Your task to perform on an android device: Add "acer nitro" to the cart on ebay.com, then select checkout. Image 0: 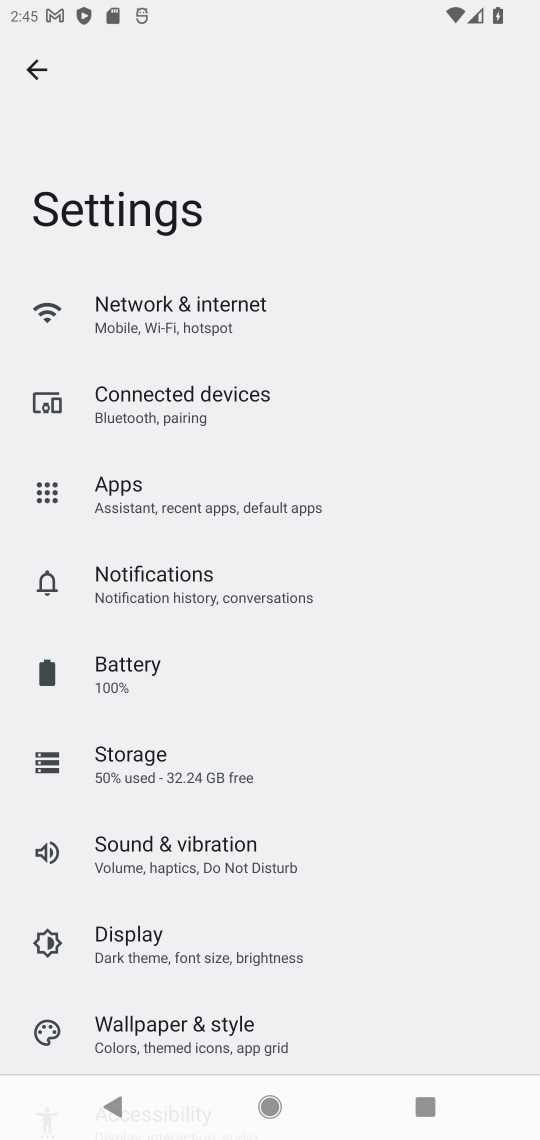
Step 0: press home button
Your task to perform on an android device: Add "acer nitro" to the cart on ebay.com, then select checkout. Image 1: 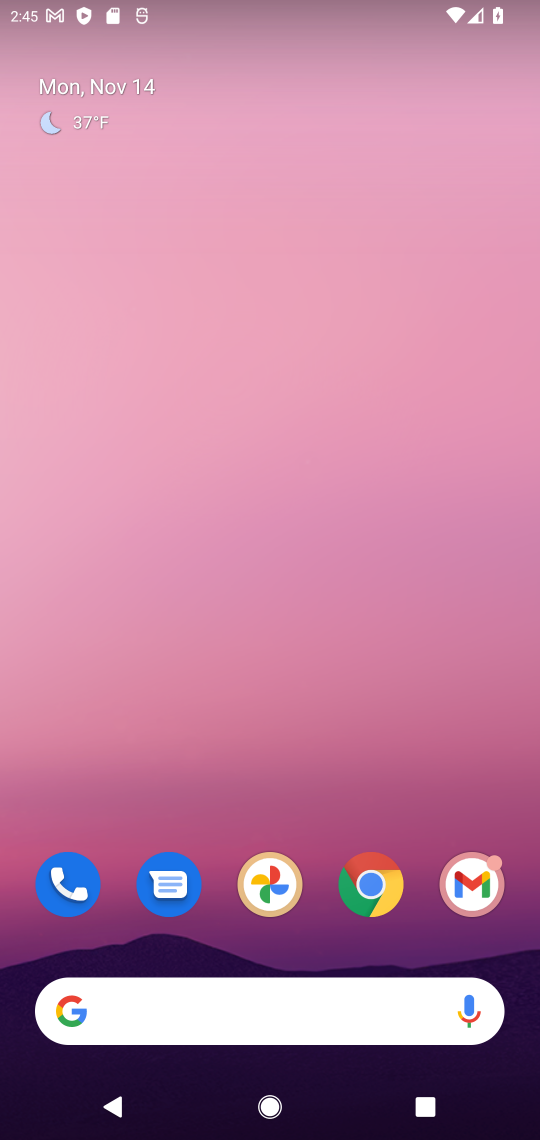
Step 1: click (373, 881)
Your task to perform on an android device: Add "acer nitro" to the cart on ebay.com, then select checkout. Image 2: 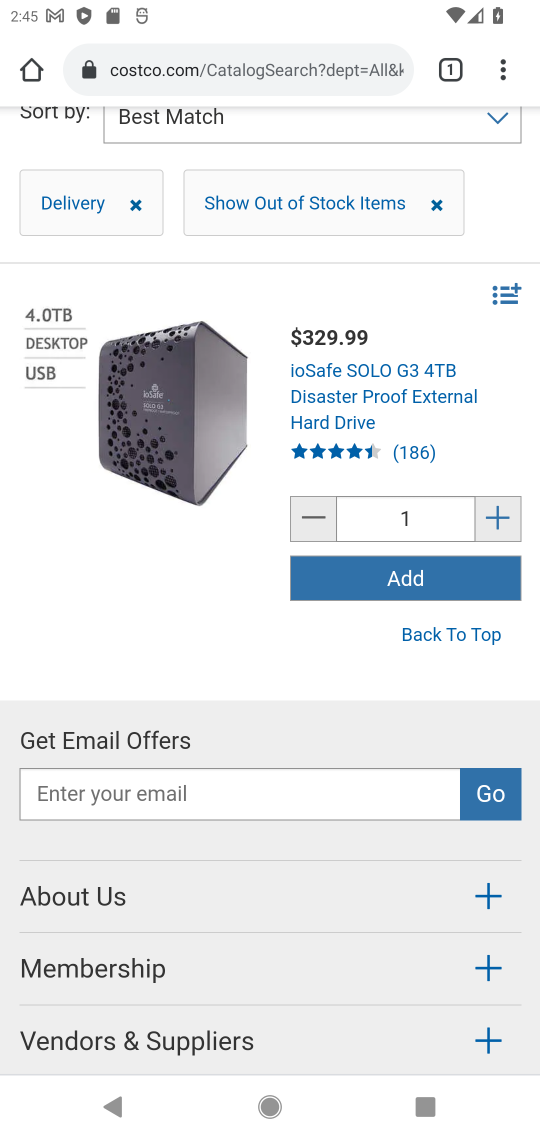
Step 2: click (253, 68)
Your task to perform on an android device: Add "acer nitro" to the cart on ebay.com, then select checkout. Image 3: 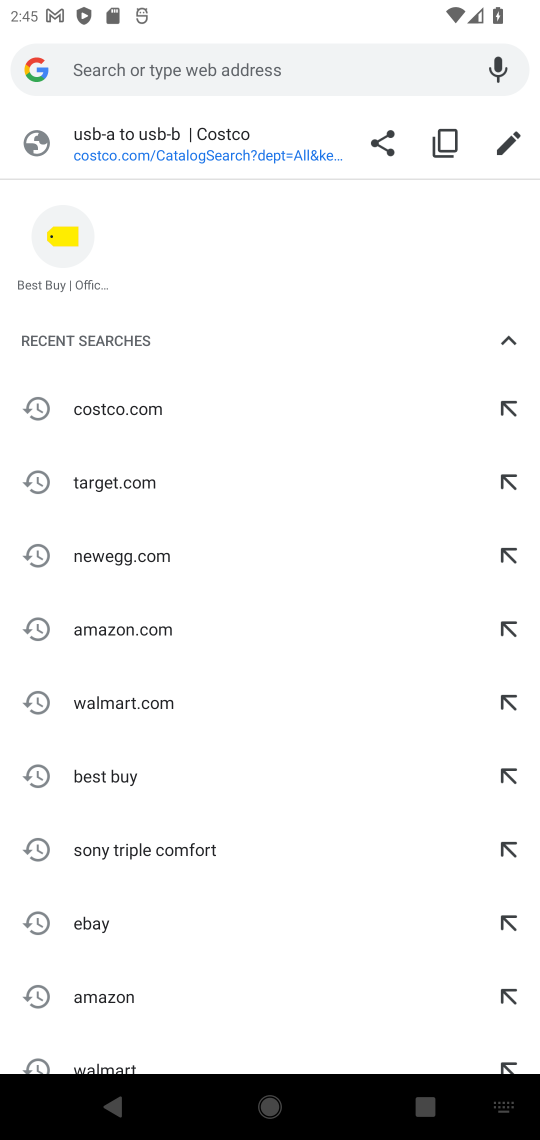
Step 3: click (97, 924)
Your task to perform on an android device: Add "acer nitro" to the cart on ebay.com, then select checkout. Image 4: 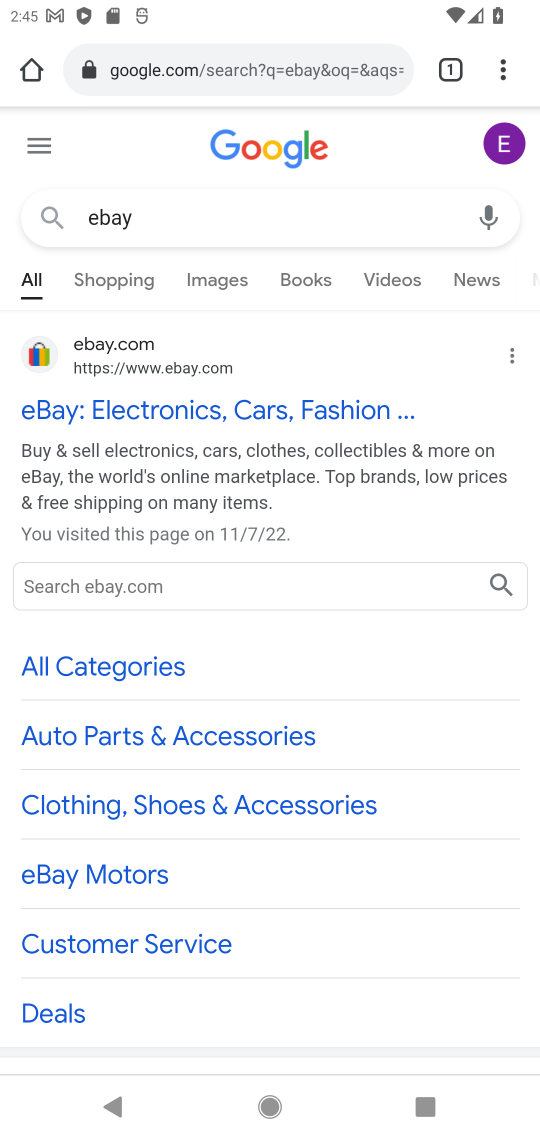
Step 4: click (127, 369)
Your task to perform on an android device: Add "acer nitro" to the cart on ebay.com, then select checkout. Image 5: 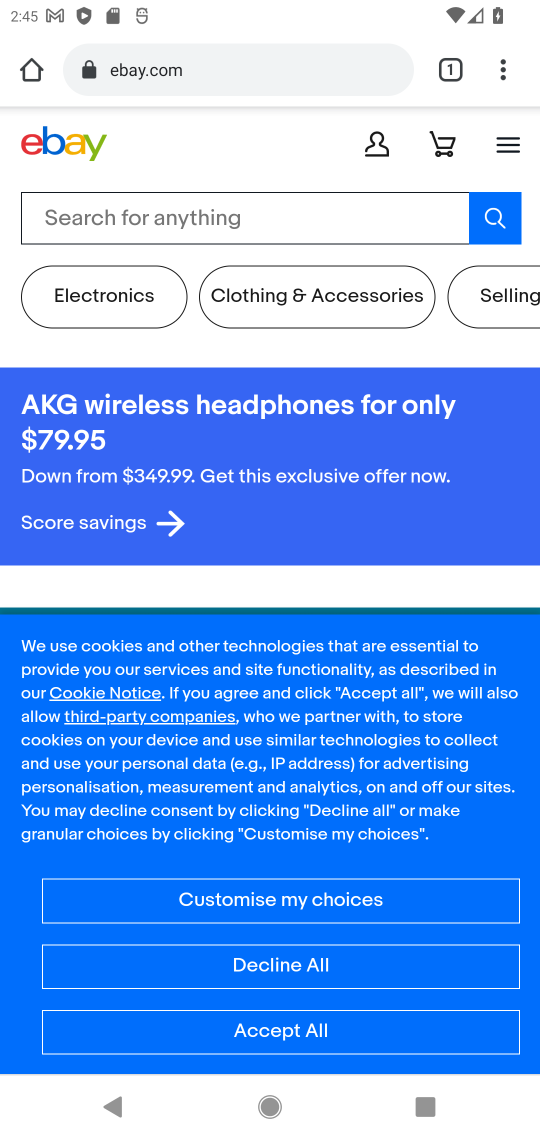
Step 5: click (419, 207)
Your task to perform on an android device: Add "acer nitro" to the cart on ebay.com, then select checkout. Image 6: 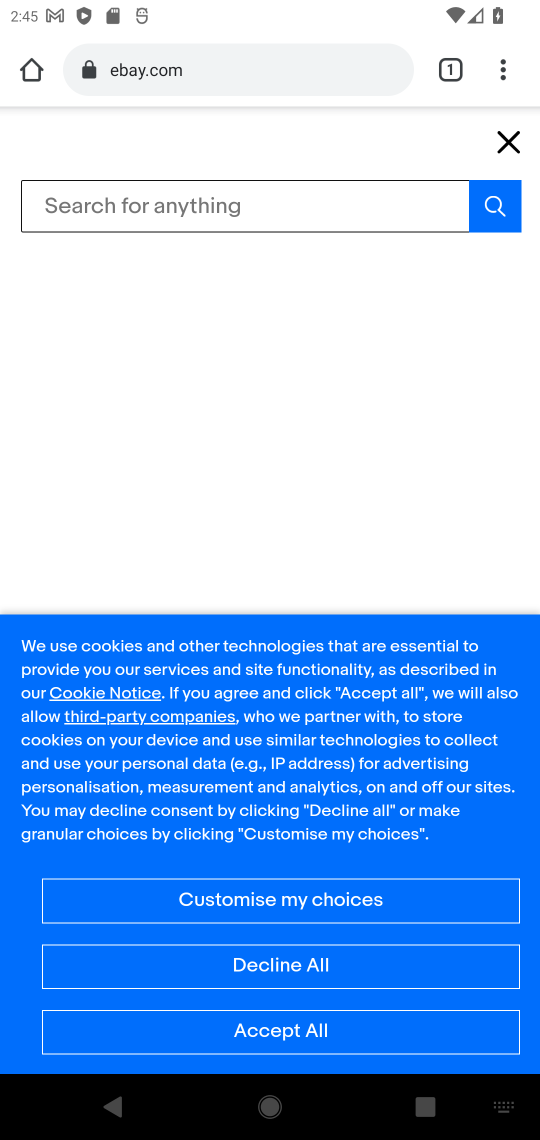
Step 6: press enter
Your task to perform on an android device: Add "acer nitro" to the cart on ebay.com, then select checkout. Image 7: 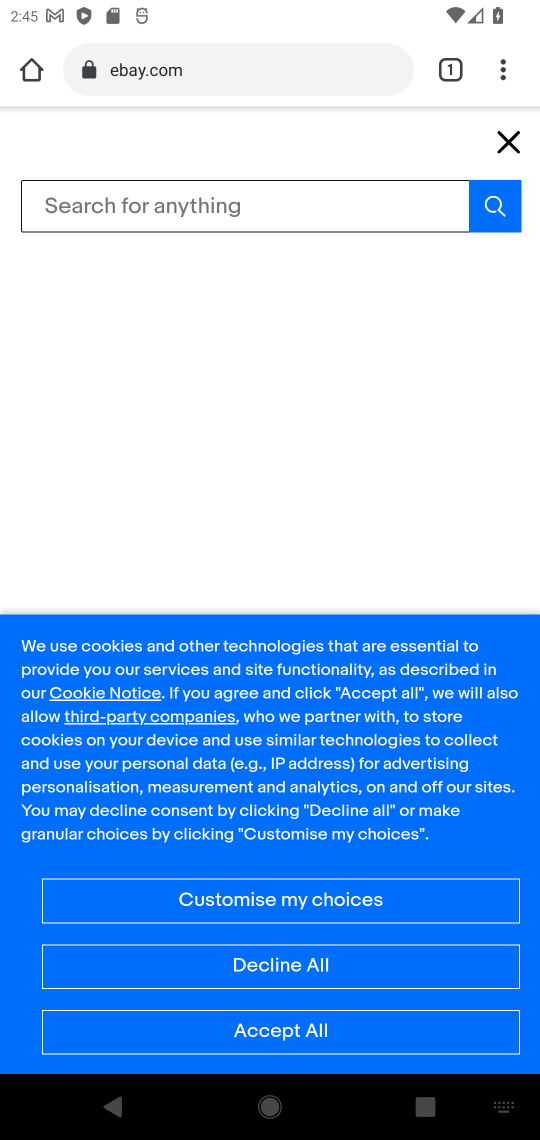
Step 7: type "acer nitro"
Your task to perform on an android device: Add "acer nitro" to the cart on ebay.com, then select checkout. Image 8: 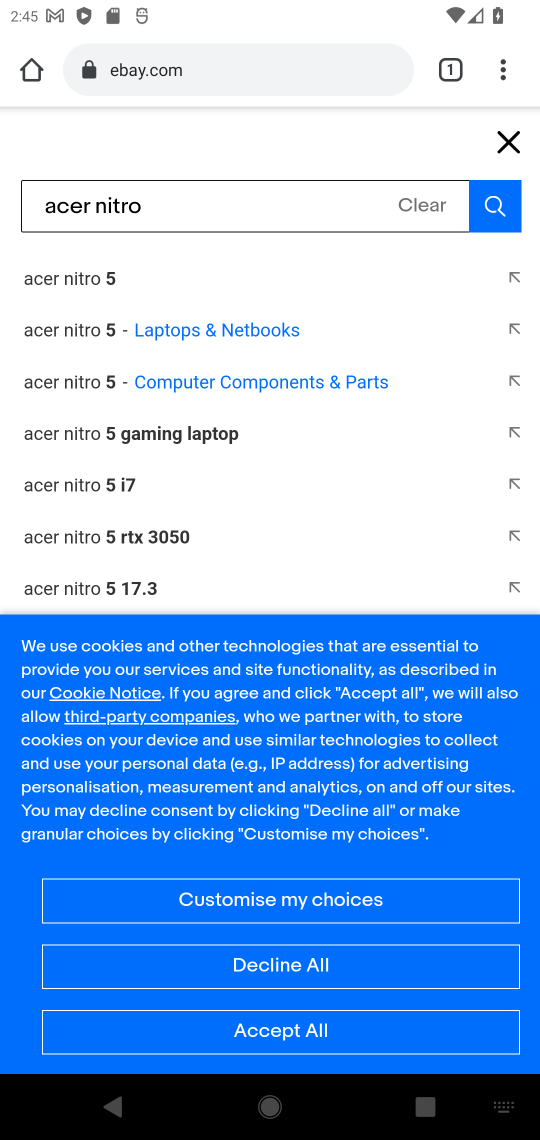
Step 8: click (273, 1026)
Your task to perform on an android device: Add "acer nitro" to the cart on ebay.com, then select checkout. Image 9: 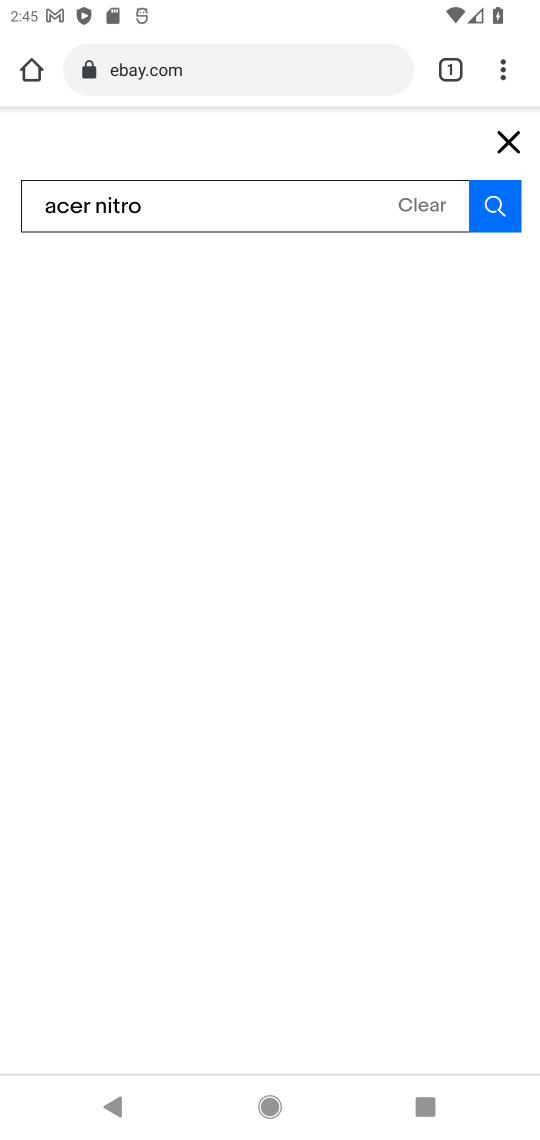
Step 9: click (484, 204)
Your task to perform on an android device: Add "acer nitro" to the cart on ebay.com, then select checkout. Image 10: 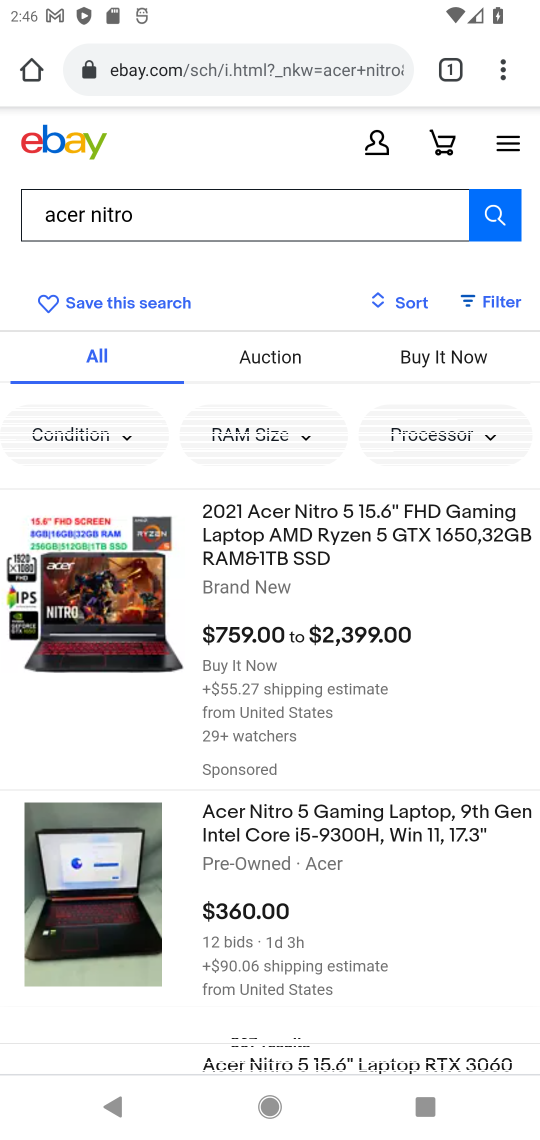
Step 10: drag from (335, 836) to (527, 417)
Your task to perform on an android device: Add "acer nitro" to the cart on ebay.com, then select checkout. Image 11: 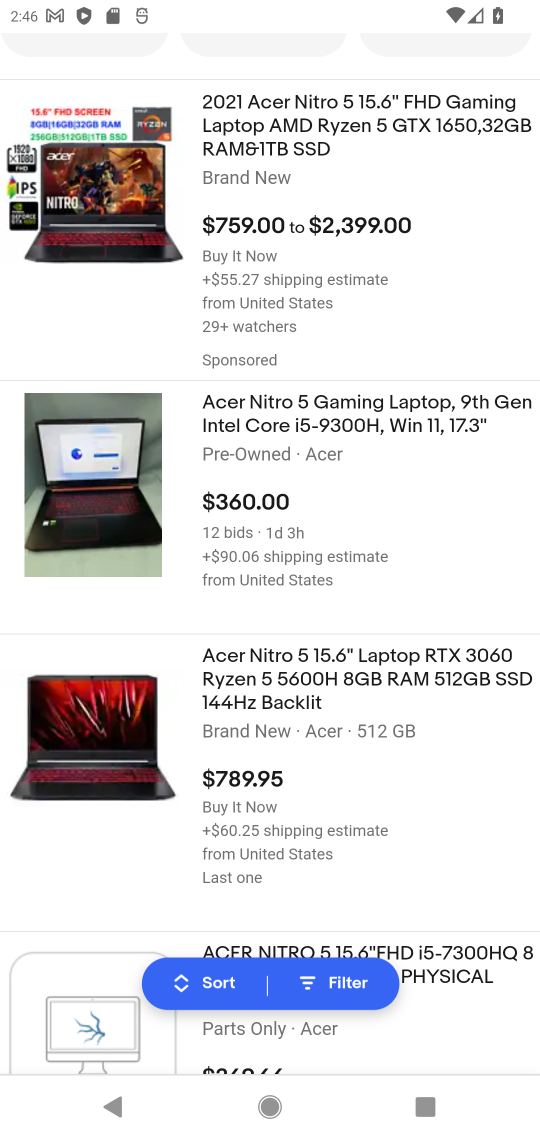
Step 11: drag from (423, 836) to (439, 437)
Your task to perform on an android device: Add "acer nitro" to the cart on ebay.com, then select checkout. Image 12: 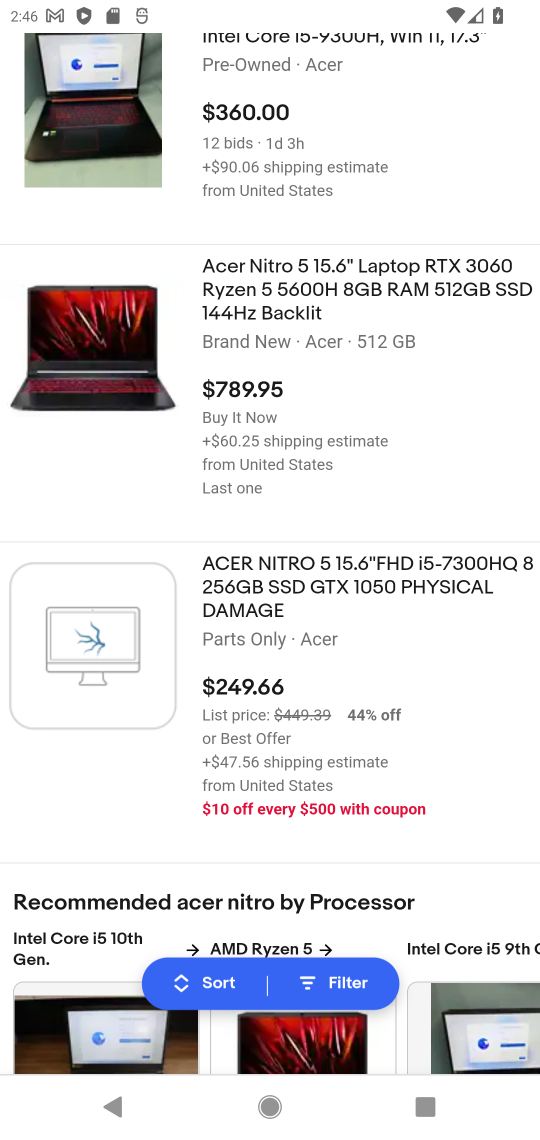
Step 12: drag from (427, 684) to (450, 333)
Your task to perform on an android device: Add "acer nitro" to the cart on ebay.com, then select checkout. Image 13: 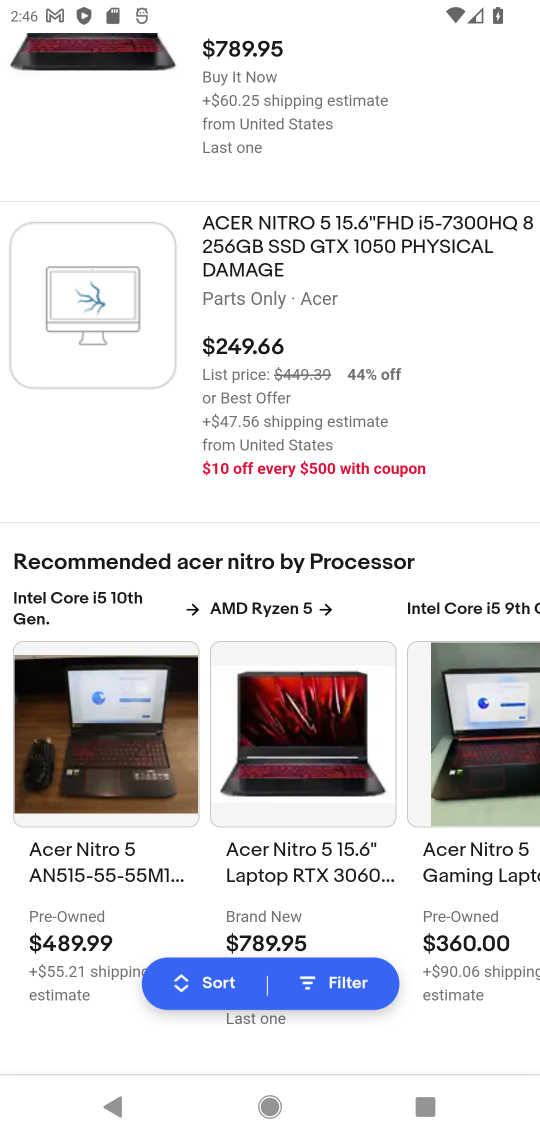
Step 13: drag from (394, 734) to (332, 329)
Your task to perform on an android device: Add "acer nitro" to the cart on ebay.com, then select checkout. Image 14: 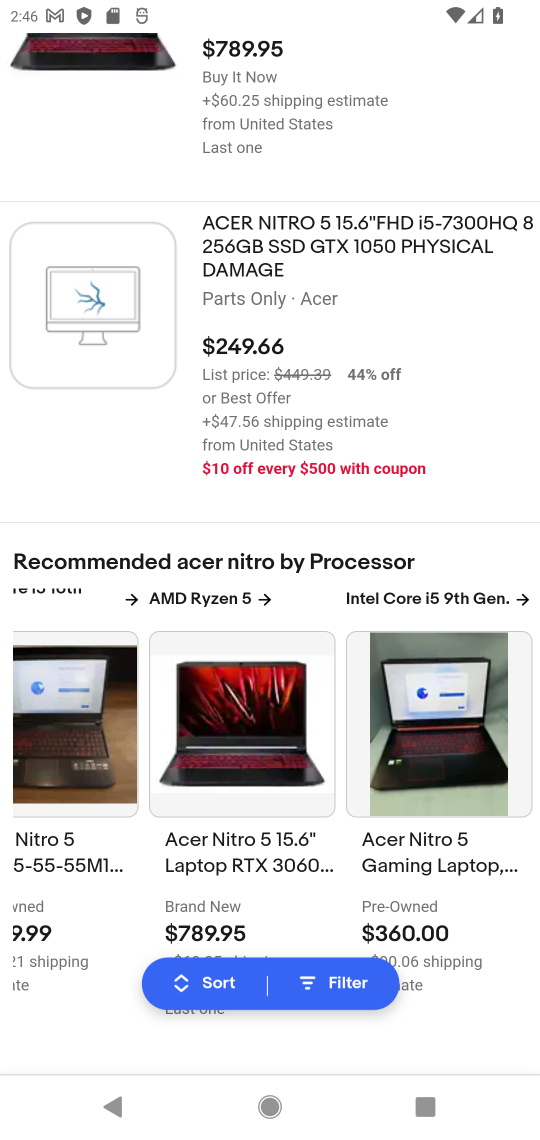
Step 14: drag from (341, 635) to (366, 289)
Your task to perform on an android device: Add "acer nitro" to the cart on ebay.com, then select checkout. Image 15: 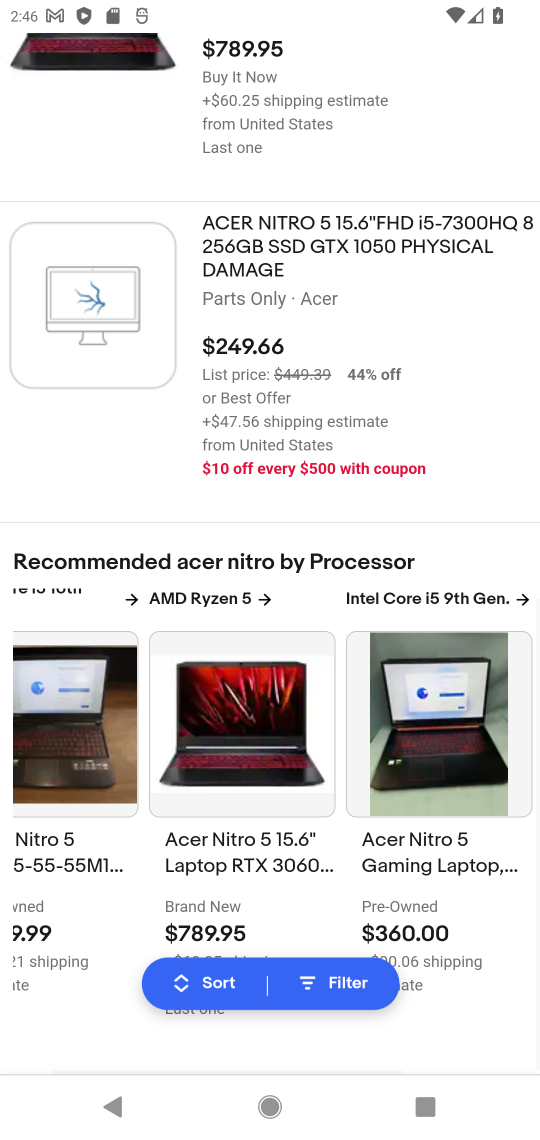
Step 15: drag from (344, 380) to (341, 589)
Your task to perform on an android device: Add "acer nitro" to the cart on ebay.com, then select checkout. Image 16: 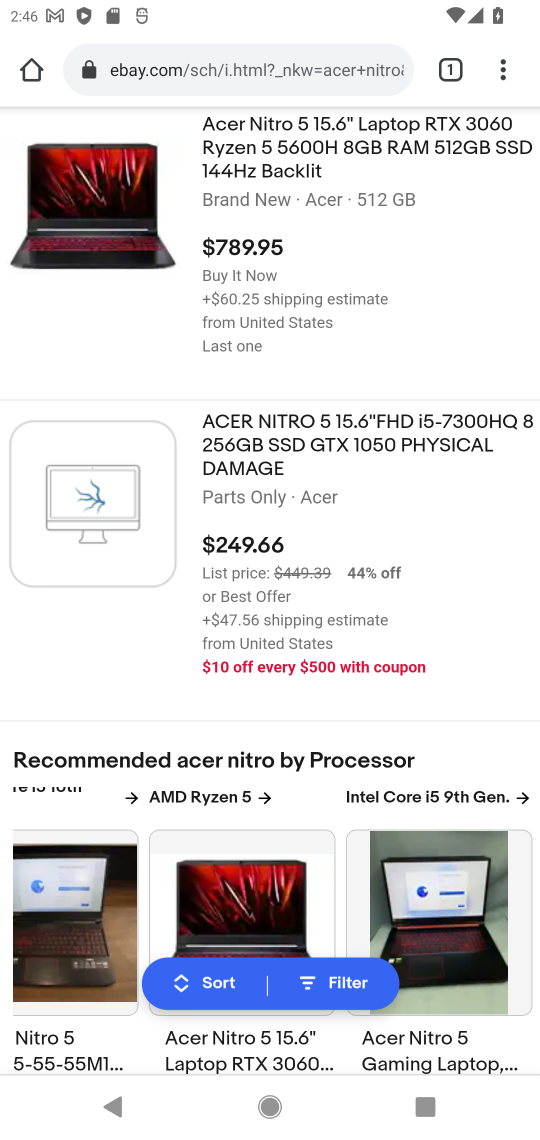
Step 16: drag from (262, 249) to (284, 491)
Your task to perform on an android device: Add "acer nitro" to the cart on ebay.com, then select checkout. Image 17: 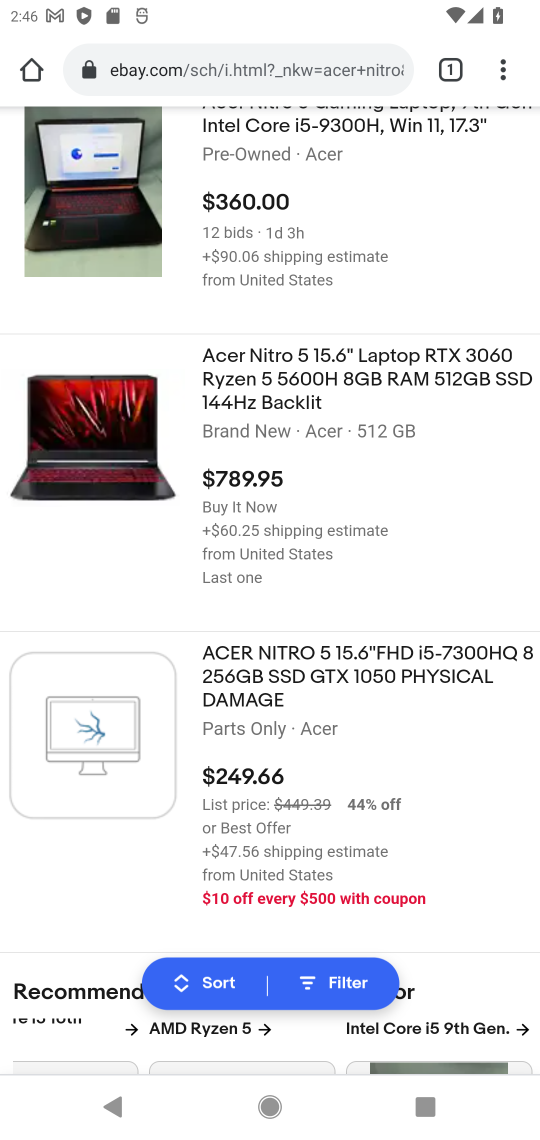
Step 17: click (123, 339)
Your task to perform on an android device: Add "acer nitro" to the cart on ebay.com, then select checkout. Image 18: 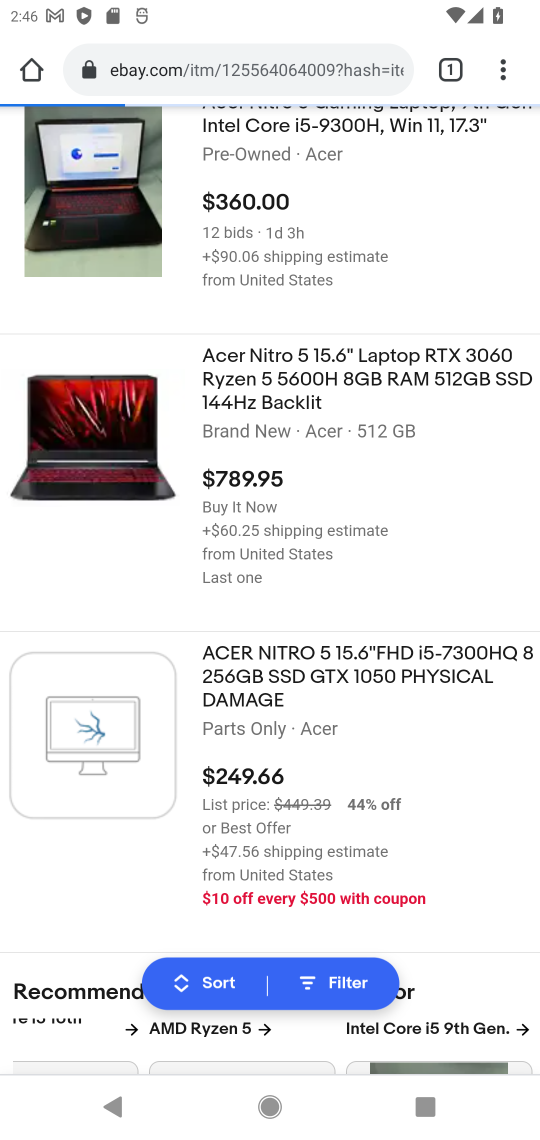
Step 18: click (136, 414)
Your task to perform on an android device: Add "acer nitro" to the cart on ebay.com, then select checkout. Image 19: 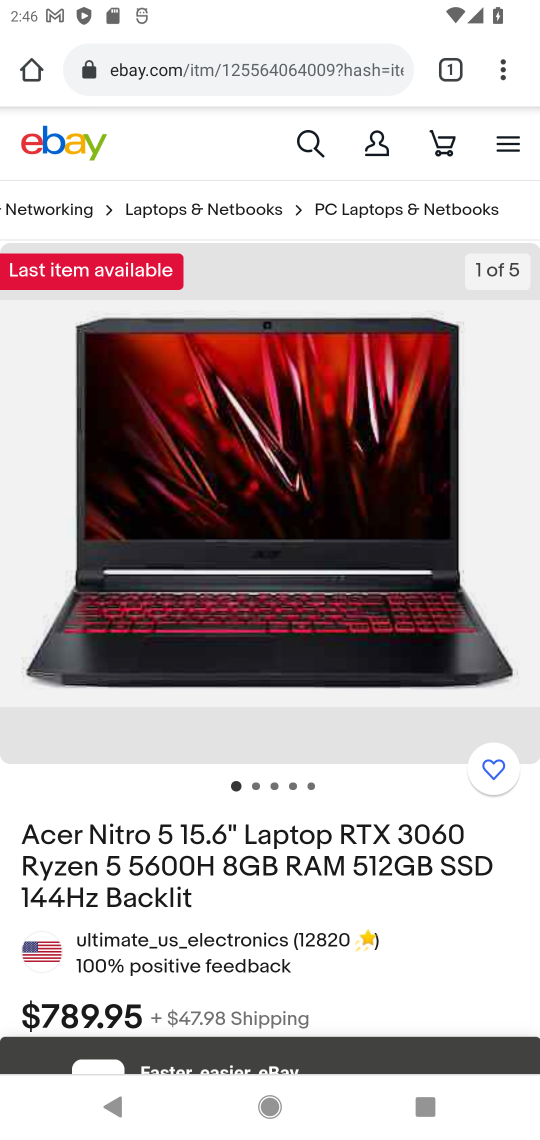
Step 19: drag from (374, 939) to (528, 423)
Your task to perform on an android device: Add "acer nitro" to the cart on ebay.com, then select checkout. Image 20: 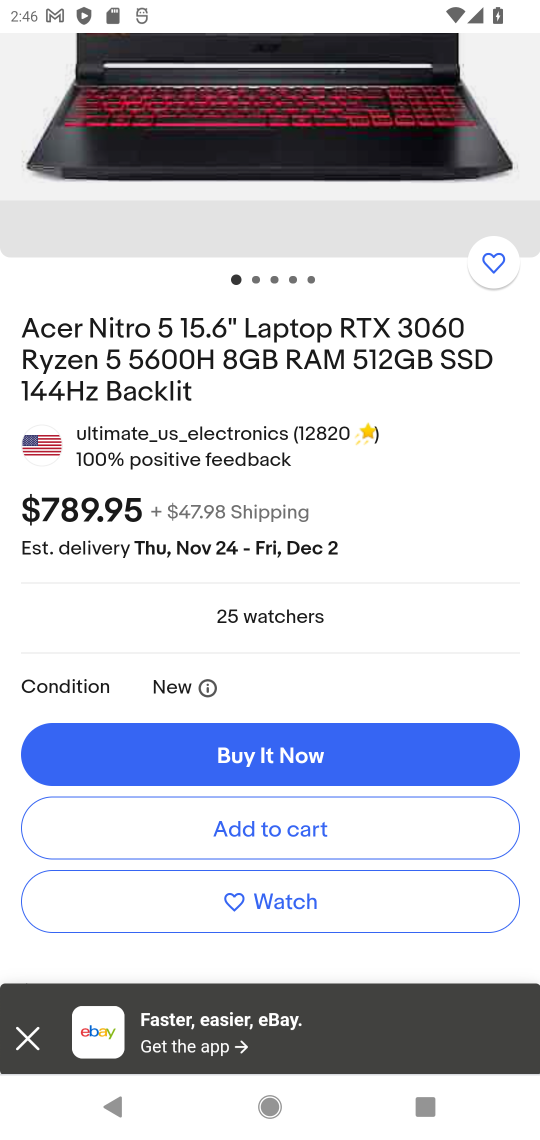
Step 20: click (292, 827)
Your task to perform on an android device: Add "acer nitro" to the cart on ebay.com, then select checkout. Image 21: 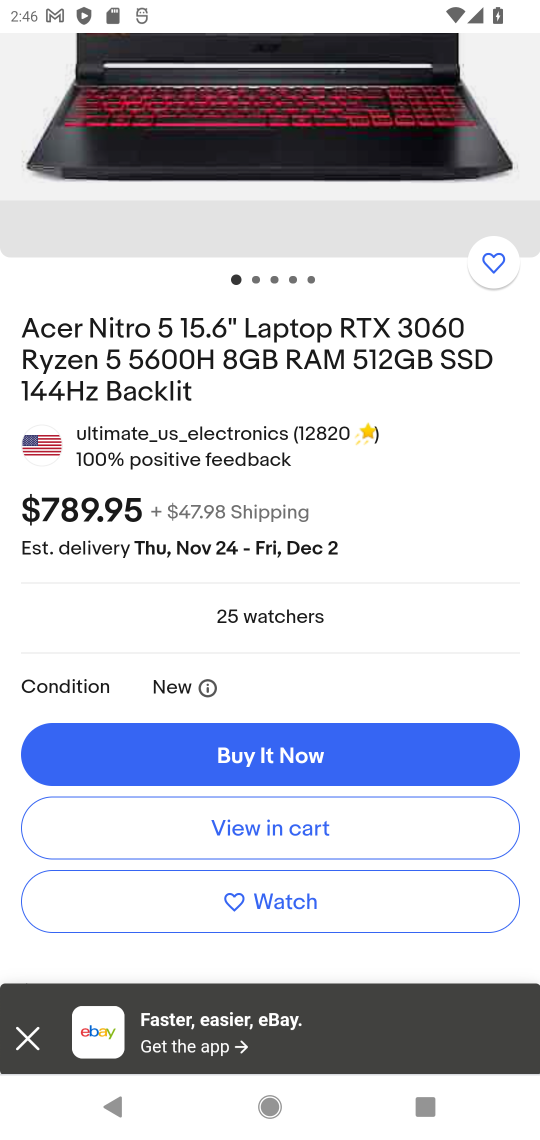
Step 21: click (291, 826)
Your task to perform on an android device: Add "acer nitro" to the cart on ebay.com, then select checkout. Image 22: 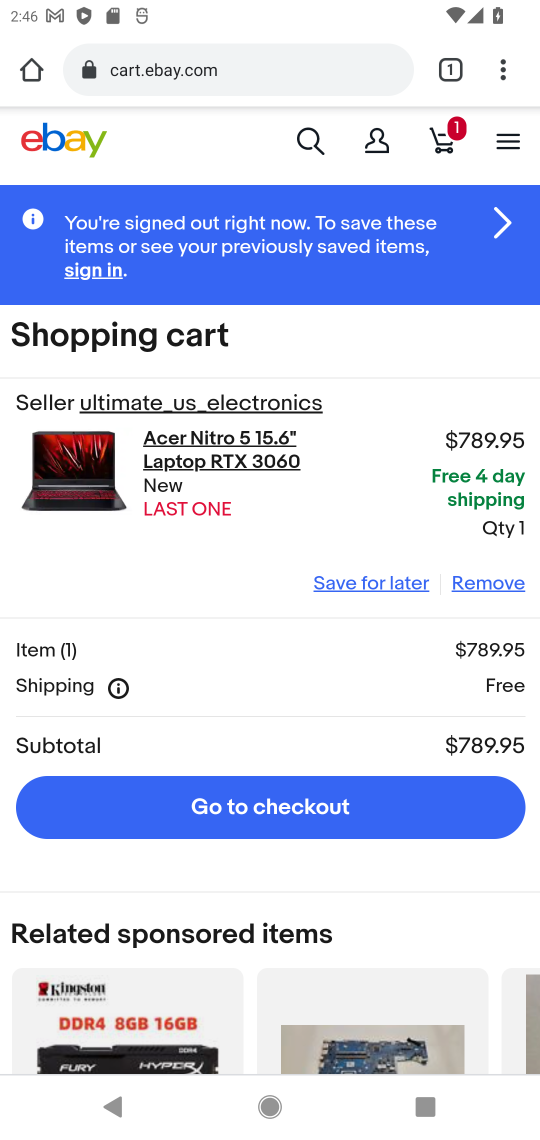
Step 22: click (277, 809)
Your task to perform on an android device: Add "acer nitro" to the cart on ebay.com, then select checkout. Image 23: 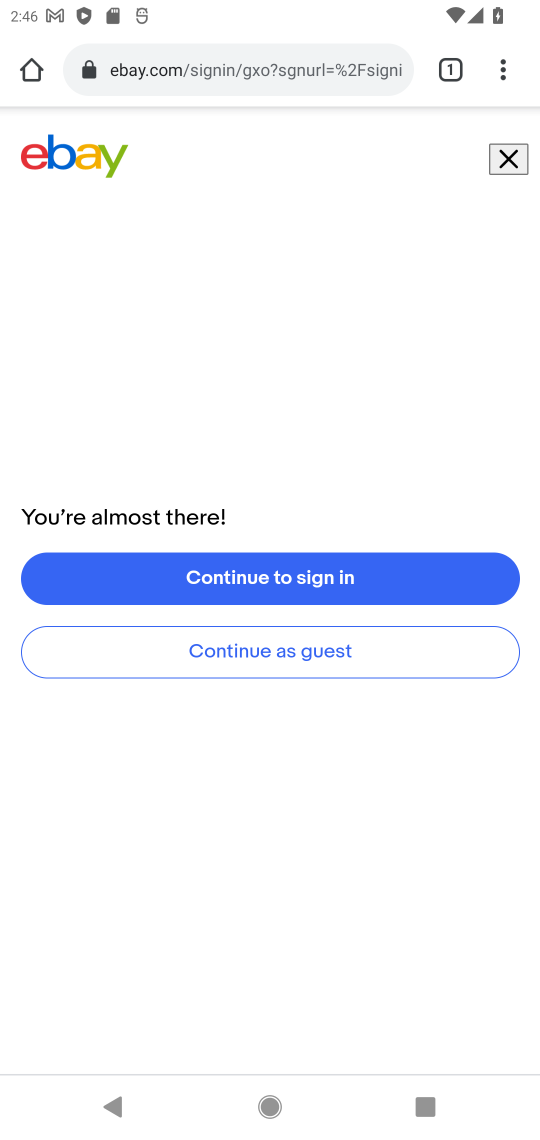
Step 23: task complete